Your task to perform on an android device: Go to notification settings Image 0: 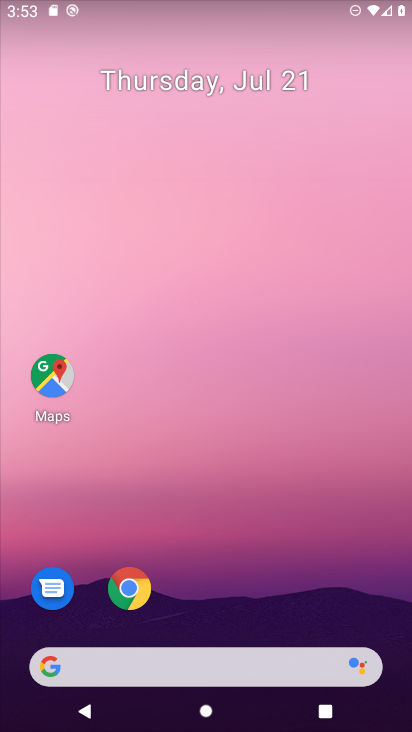
Step 0: drag from (167, 681) to (228, 83)
Your task to perform on an android device: Go to notification settings Image 1: 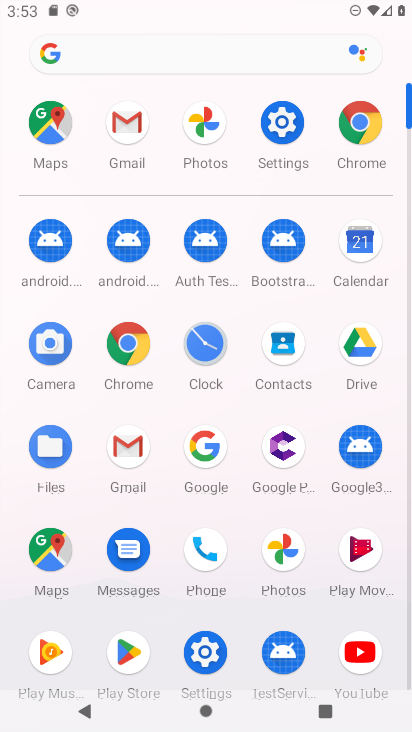
Step 1: click (285, 146)
Your task to perform on an android device: Go to notification settings Image 2: 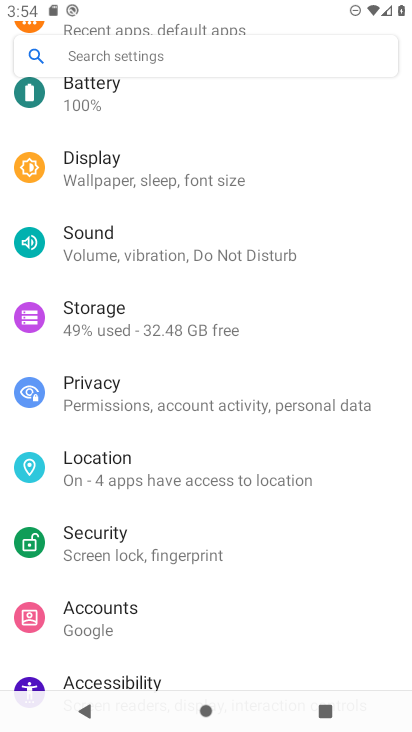
Step 2: drag from (199, 305) to (182, 722)
Your task to perform on an android device: Go to notification settings Image 3: 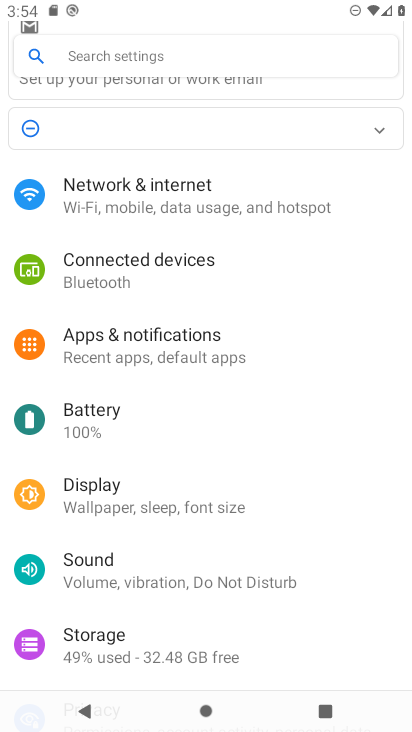
Step 3: click (195, 353)
Your task to perform on an android device: Go to notification settings Image 4: 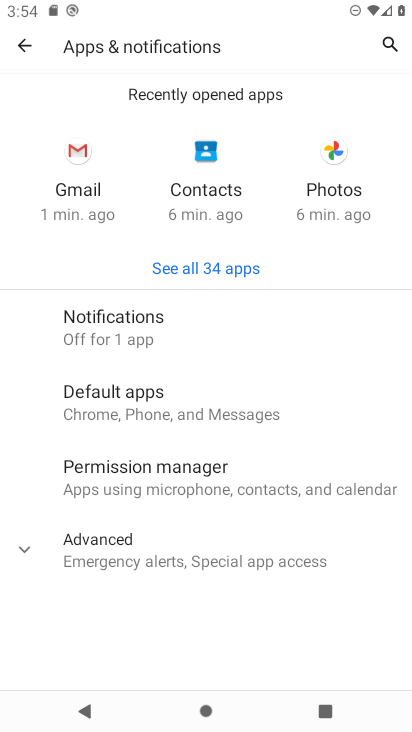
Step 4: click (182, 332)
Your task to perform on an android device: Go to notification settings Image 5: 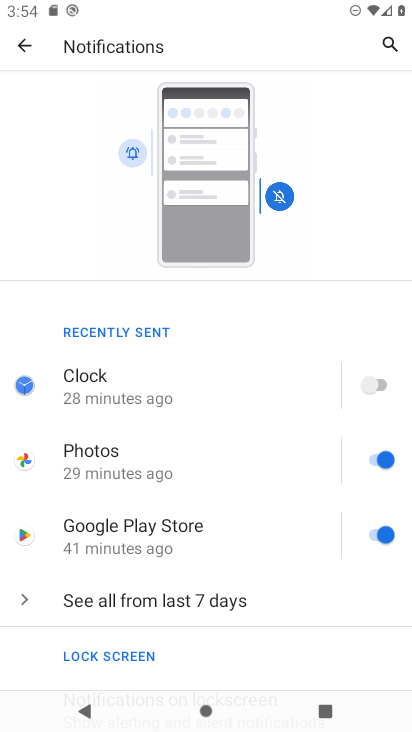
Step 5: task complete